Your task to perform on an android device: turn smart compose on in the gmail app Image 0: 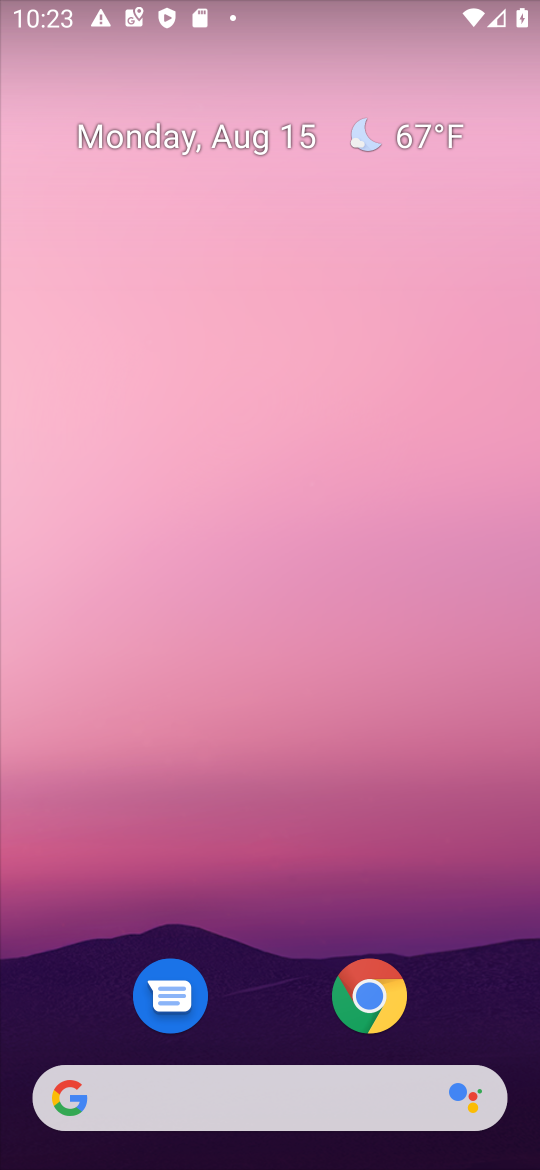
Step 0: drag from (269, 884) to (350, 445)
Your task to perform on an android device: turn smart compose on in the gmail app Image 1: 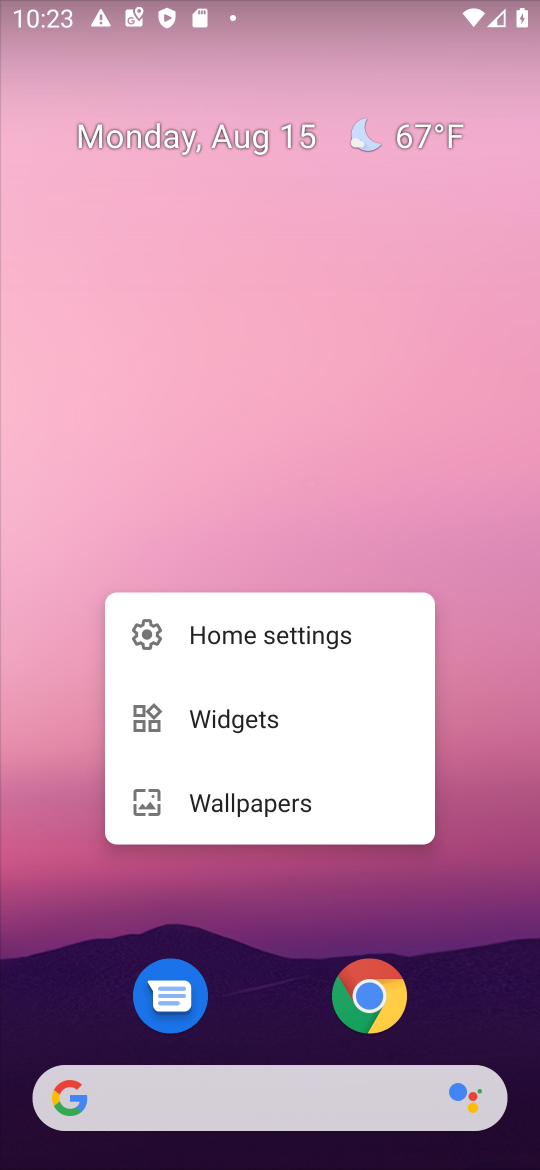
Step 1: click (274, 867)
Your task to perform on an android device: turn smart compose on in the gmail app Image 2: 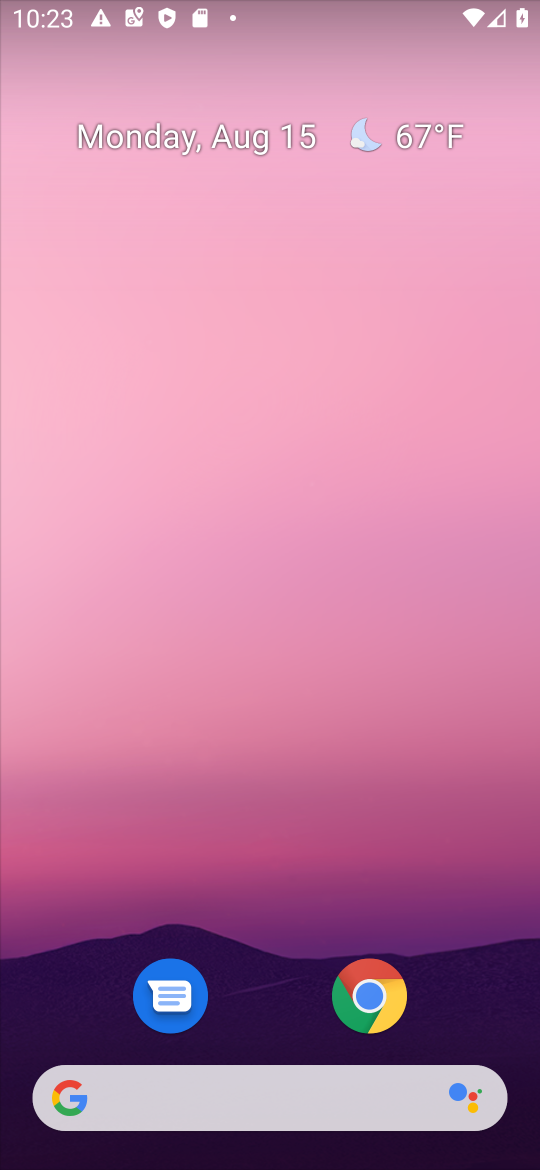
Step 2: drag from (241, 1048) to (357, 455)
Your task to perform on an android device: turn smart compose on in the gmail app Image 3: 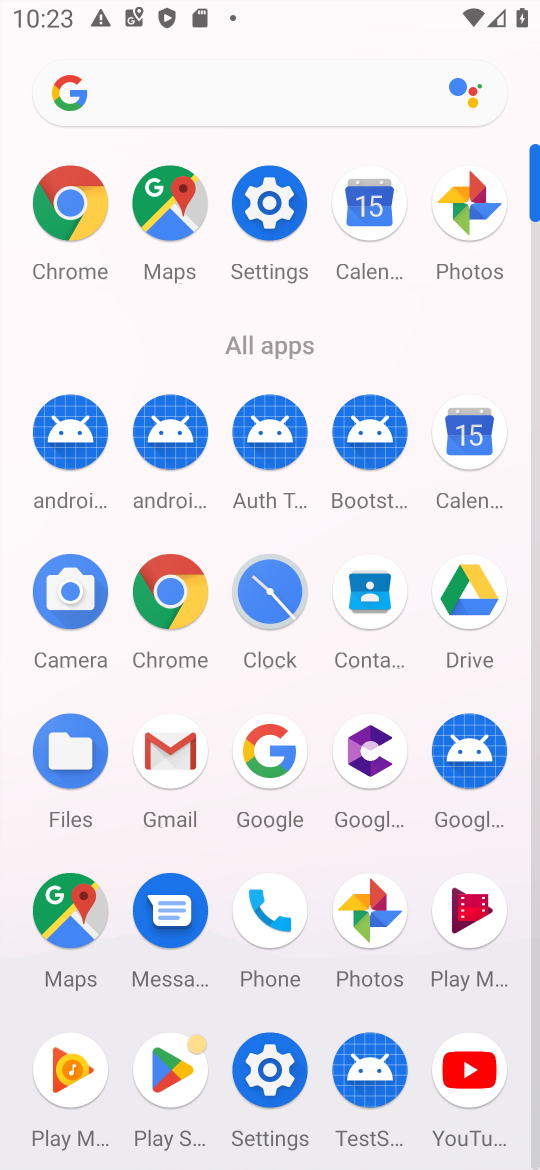
Step 3: click (171, 764)
Your task to perform on an android device: turn smart compose on in the gmail app Image 4: 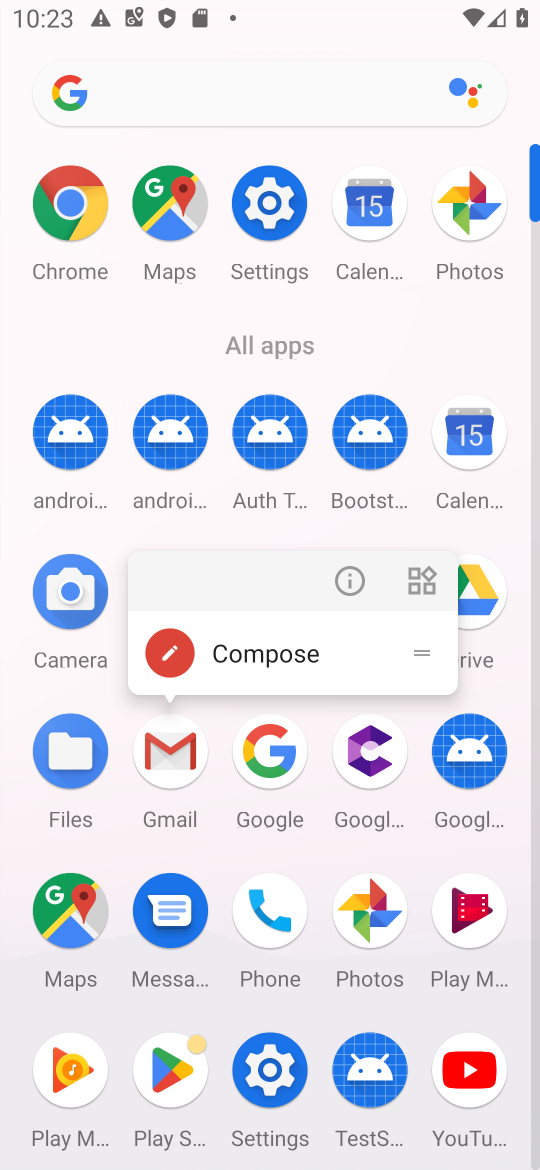
Step 4: click (166, 741)
Your task to perform on an android device: turn smart compose on in the gmail app Image 5: 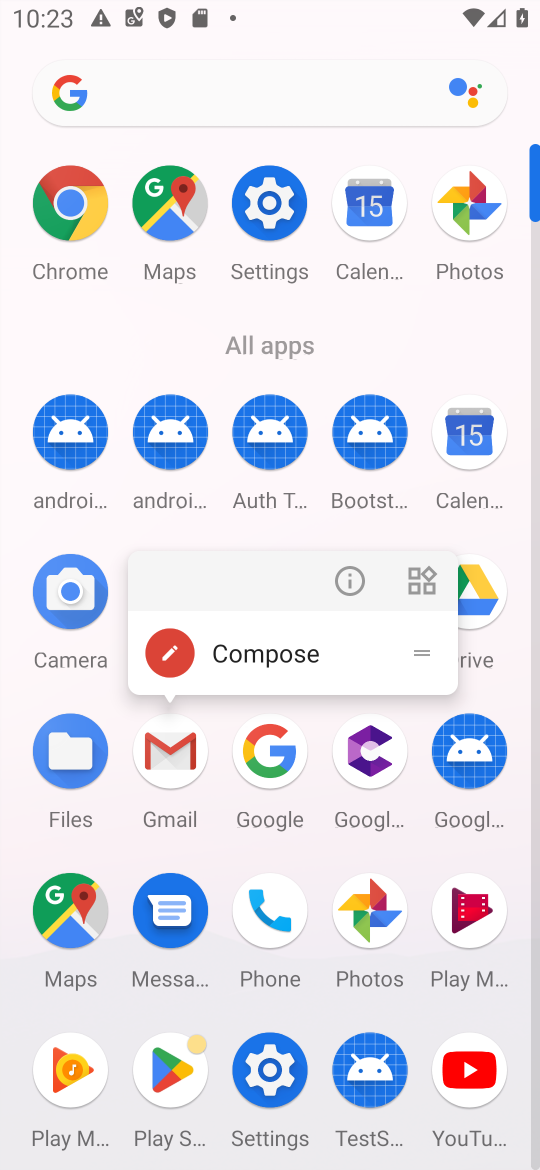
Step 5: click (168, 762)
Your task to perform on an android device: turn smart compose on in the gmail app Image 6: 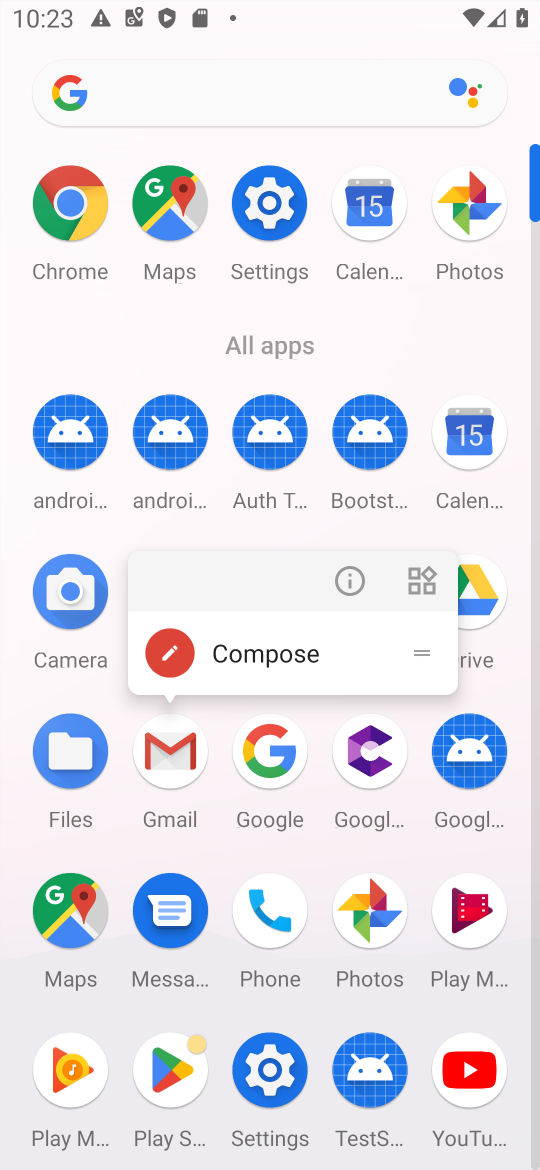
Step 6: click (168, 757)
Your task to perform on an android device: turn smart compose on in the gmail app Image 7: 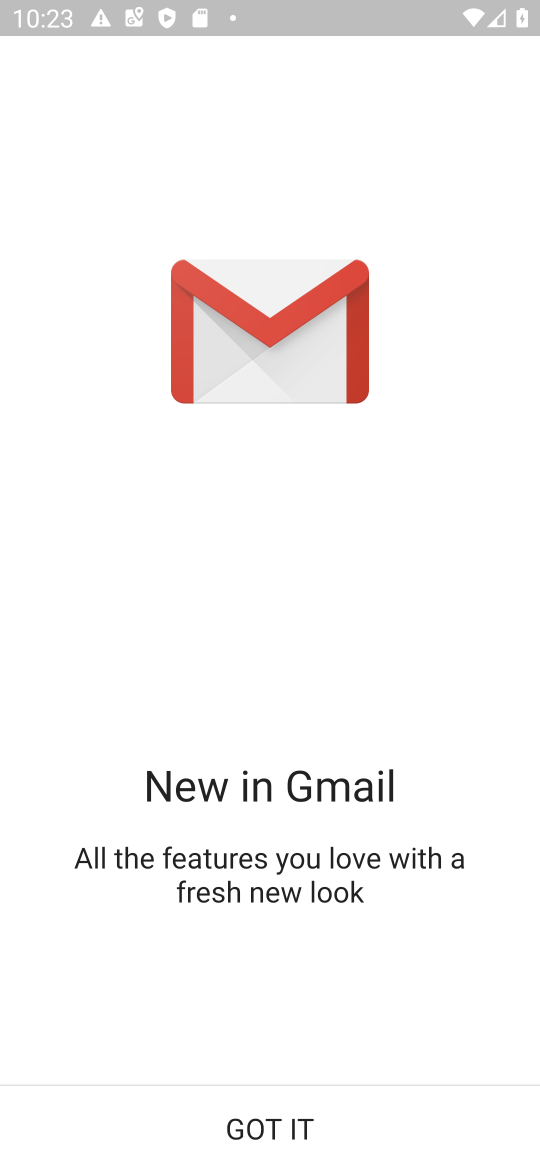
Step 7: click (225, 1136)
Your task to perform on an android device: turn smart compose on in the gmail app Image 8: 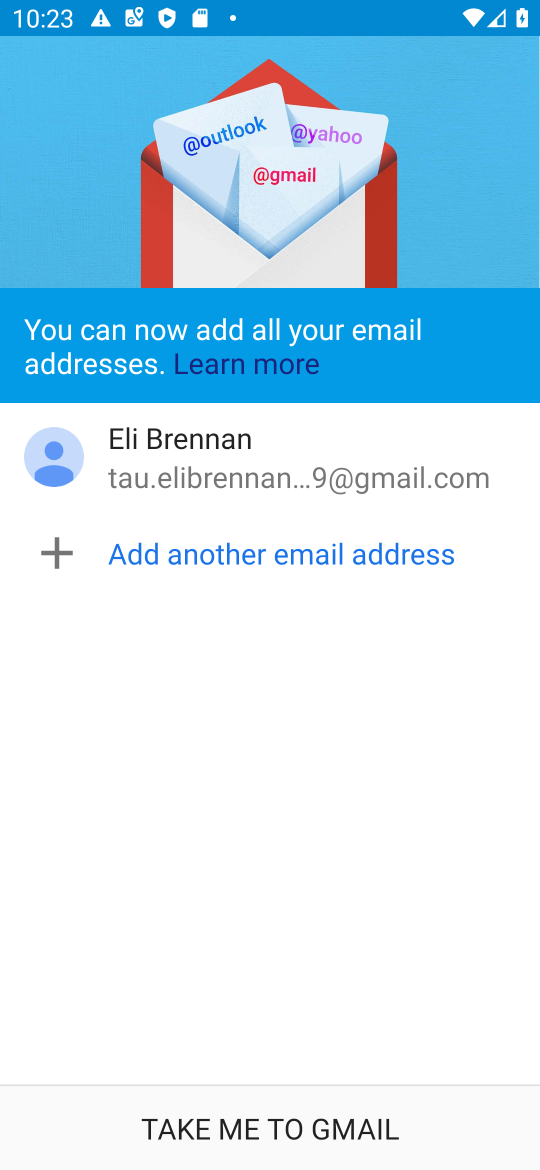
Step 8: click (229, 1135)
Your task to perform on an android device: turn smart compose on in the gmail app Image 9: 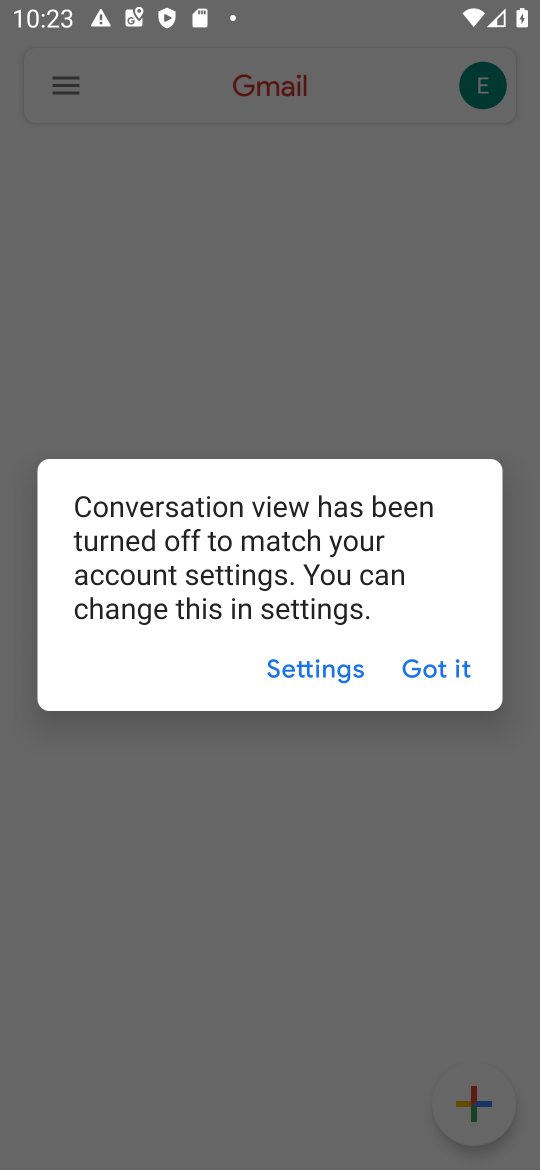
Step 9: click (449, 681)
Your task to perform on an android device: turn smart compose on in the gmail app Image 10: 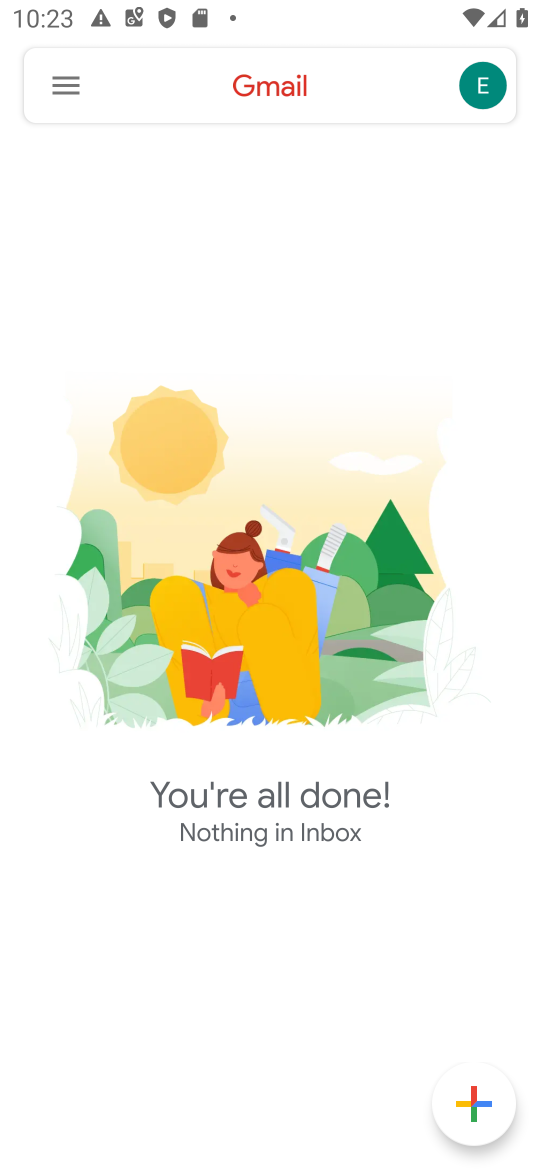
Step 10: click (57, 90)
Your task to perform on an android device: turn smart compose on in the gmail app Image 11: 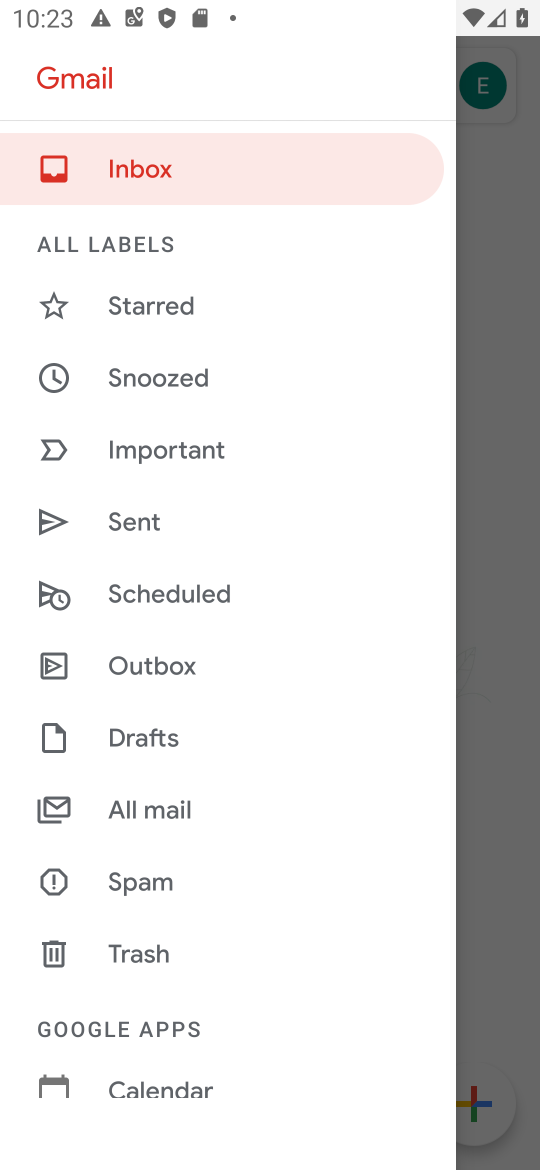
Step 11: drag from (169, 746) to (169, 376)
Your task to perform on an android device: turn smart compose on in the gmail app Image 12: 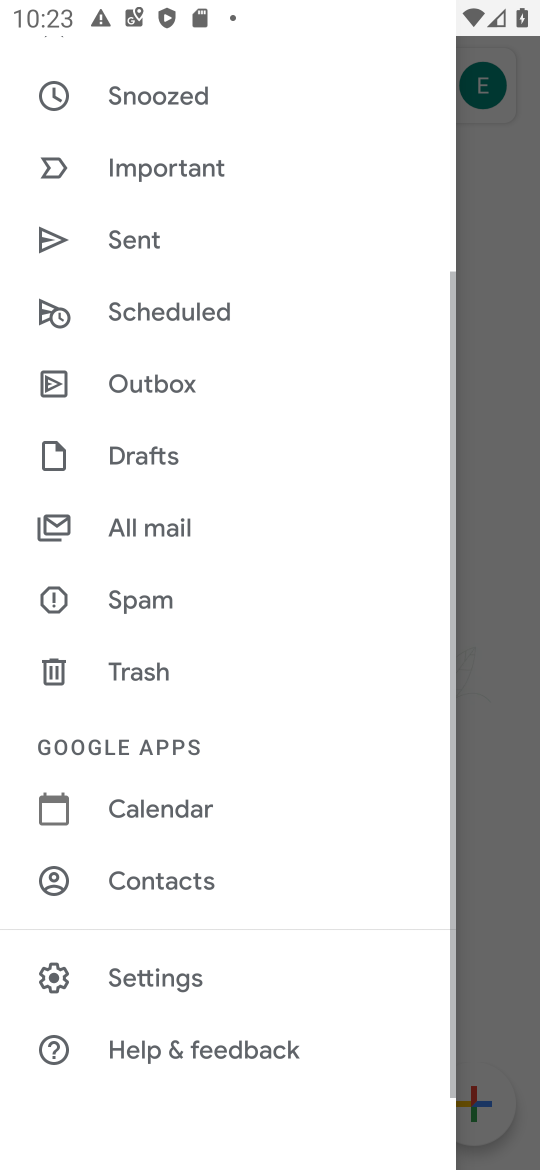
Step 12: click (132, 982)
Your task to perform on an android device: turn smart compose on in the gmail app Image 13: 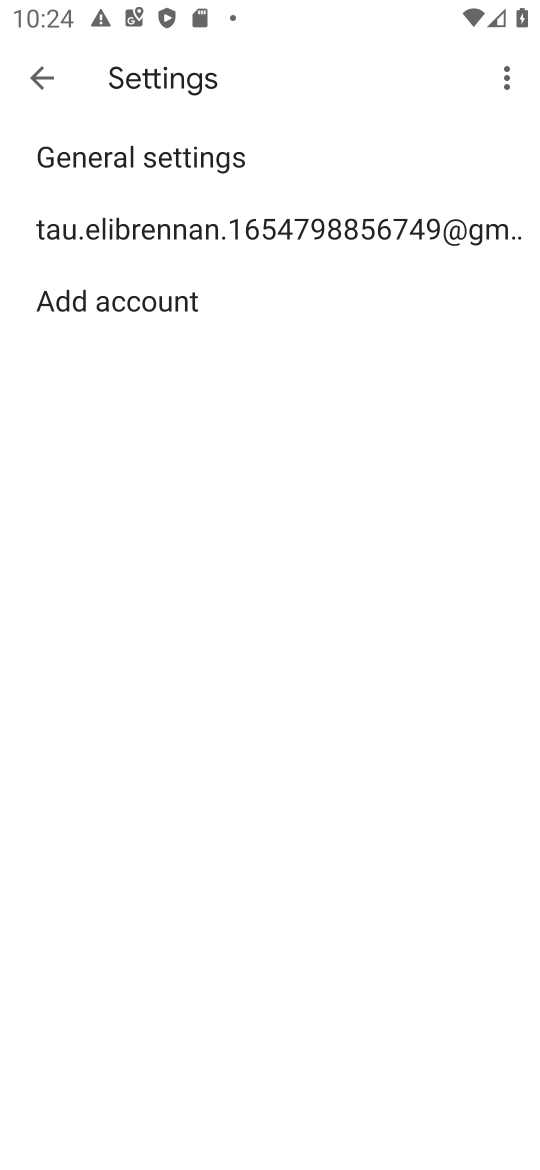
Step 13: click (99, 227)
Your task to perform on an android device: turn smart compose on in the gmail app Image 14: 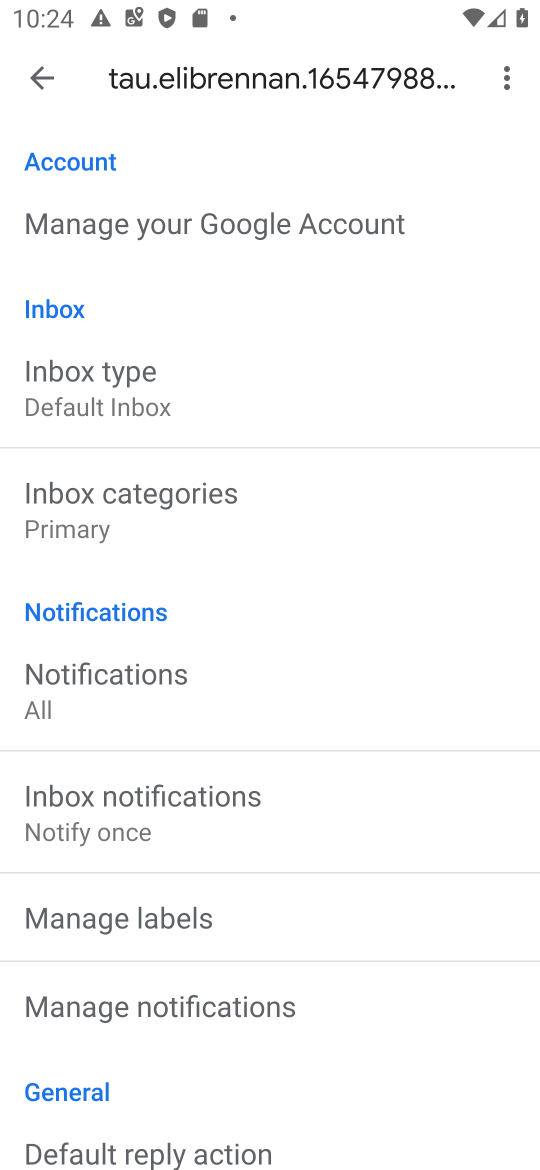
Step 14: task complete